Your task to perform on an android device: open wifi settings Image 0: 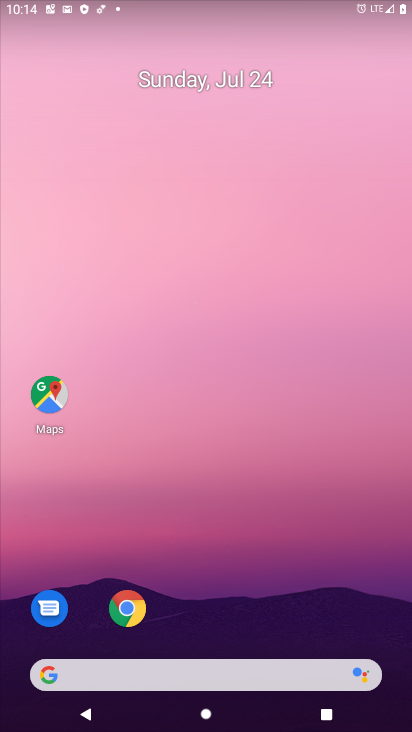
Step 0: press home button
Your task to perform on an android device: open wifi settings Image 1: 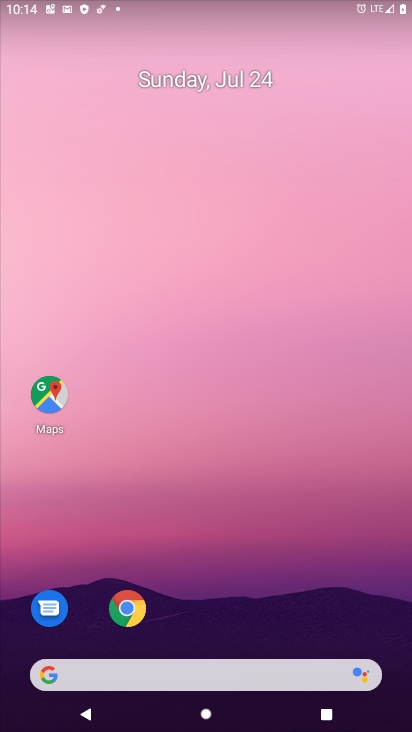
Step 1: drag from (172, 647) to (161, 157)
Your task to perform on an android device: open wifi settings Image 2: 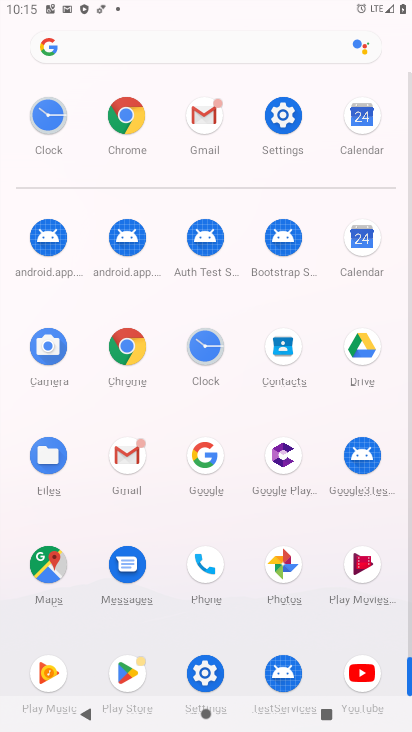
Step 2: click (282, 114)
Your task to perform on an android device: open wifi settings Image 3: 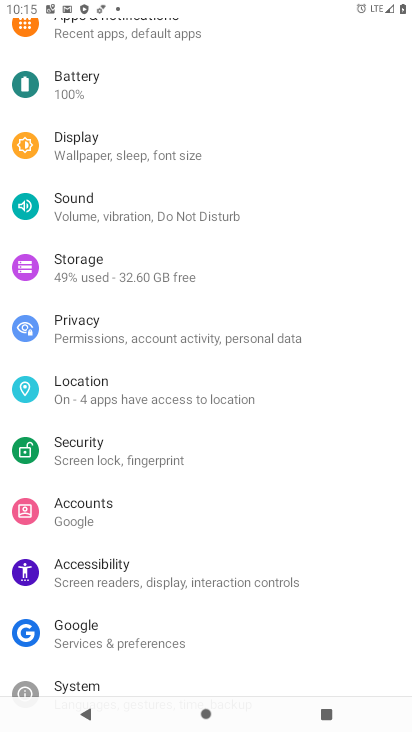
Step 3: drag from (142, 89) to (164, 728)
Your task to perform on an android device: open wifi settings Image 4: 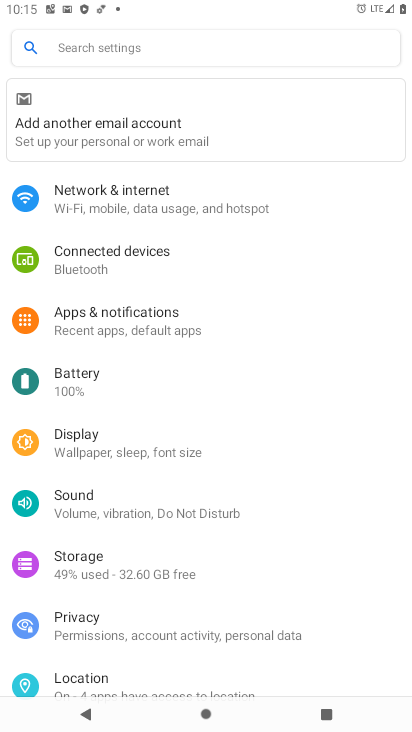
Step 4: click (166, 189)
Your task to perform on an android device: open wifi settings Image 5: 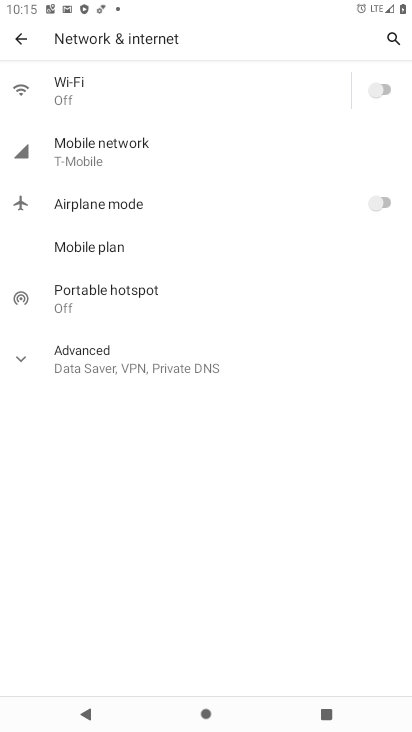
Step 5: click (109, 93)
Your task to perform on an android device: open wifi settings Image 6: 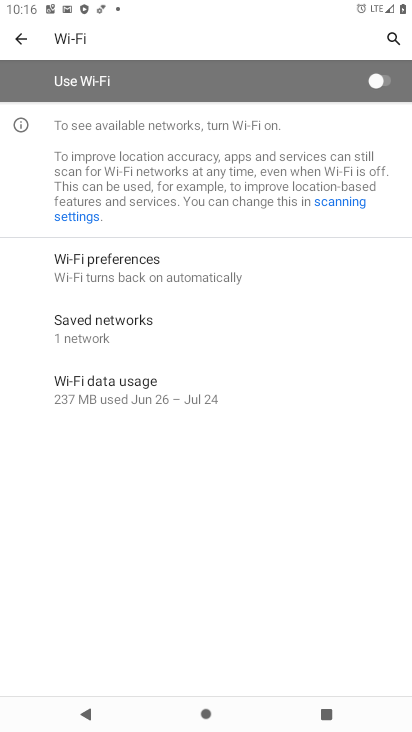
Step 6: click (382, 81)
Your task to perform on an android device: open wifi settings Image 7: 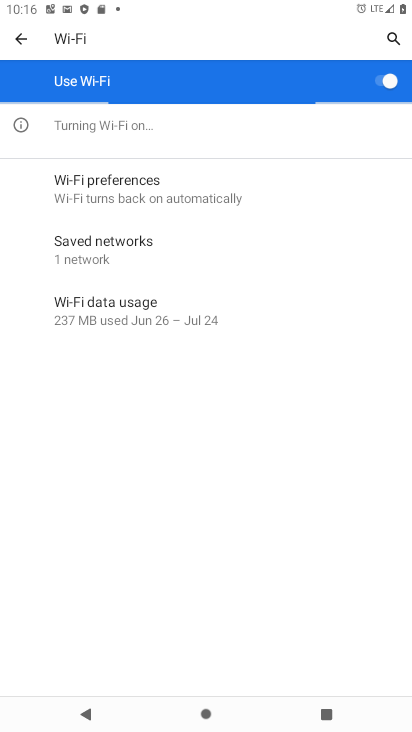
Step 7: task complete